Your task to perform on an android device: toggle sleep mode Image 0: 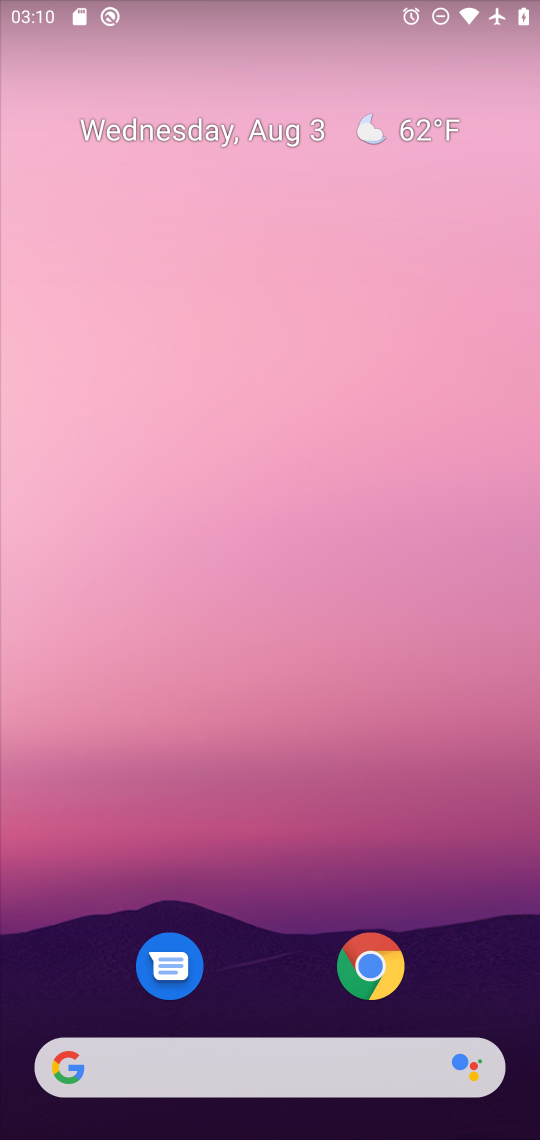
Step 0: drag from (268, 947) to (333, 349)
Your task to perform on an android device: toggle sleep mode Image 1: 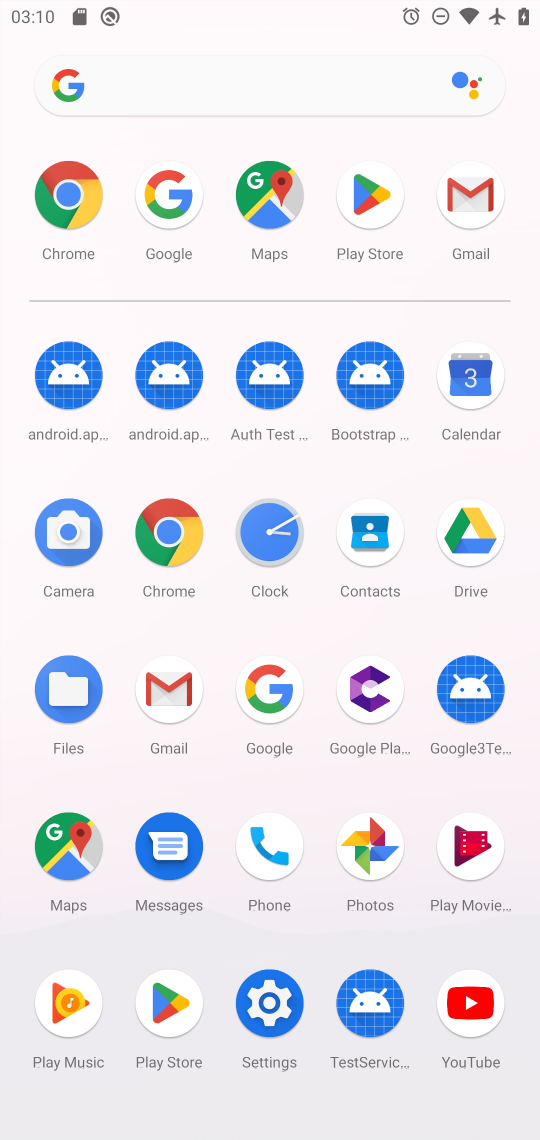
Step 1: click (251, 985)
Your task to perform on an android device: toggle sleep mode Image 2: 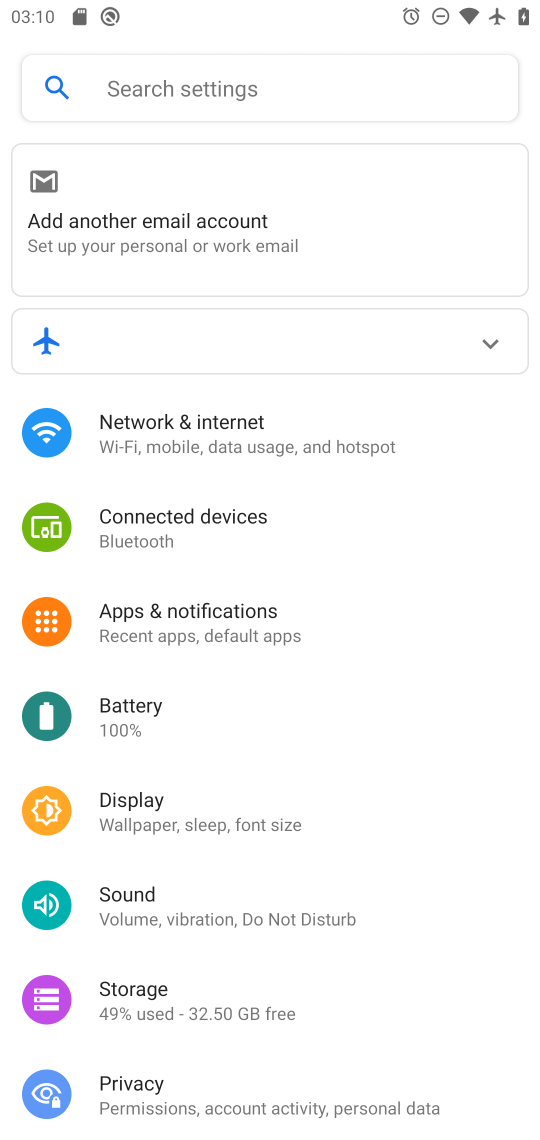
Step 2: click (136, 833)
Your task to perform on an android device: toggle sleep mode Image 3: 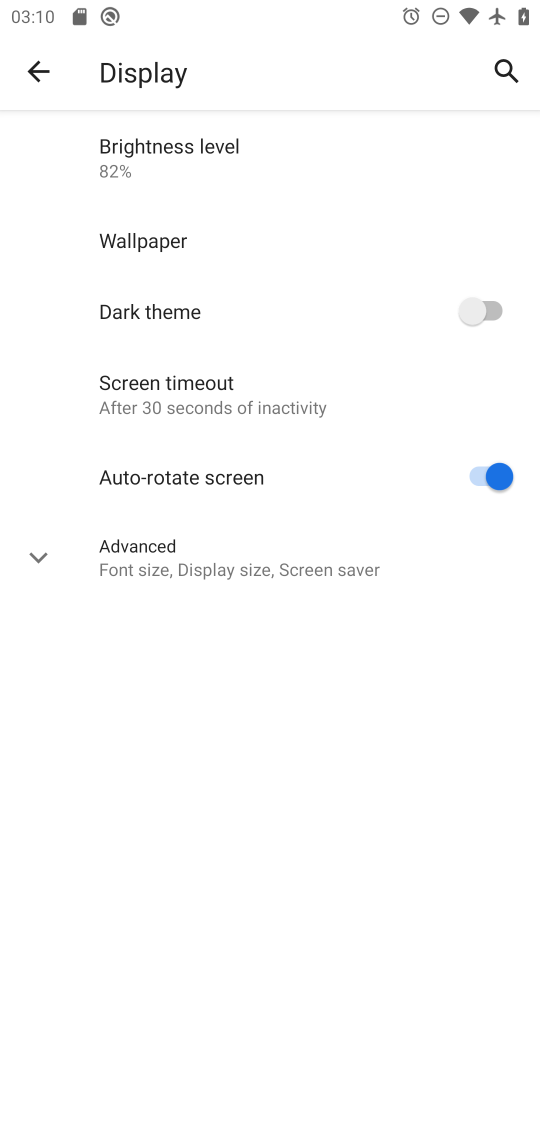
Step 3: click (217, 412)
Your task to perform on an android device: toggle sleep mode Image 4: 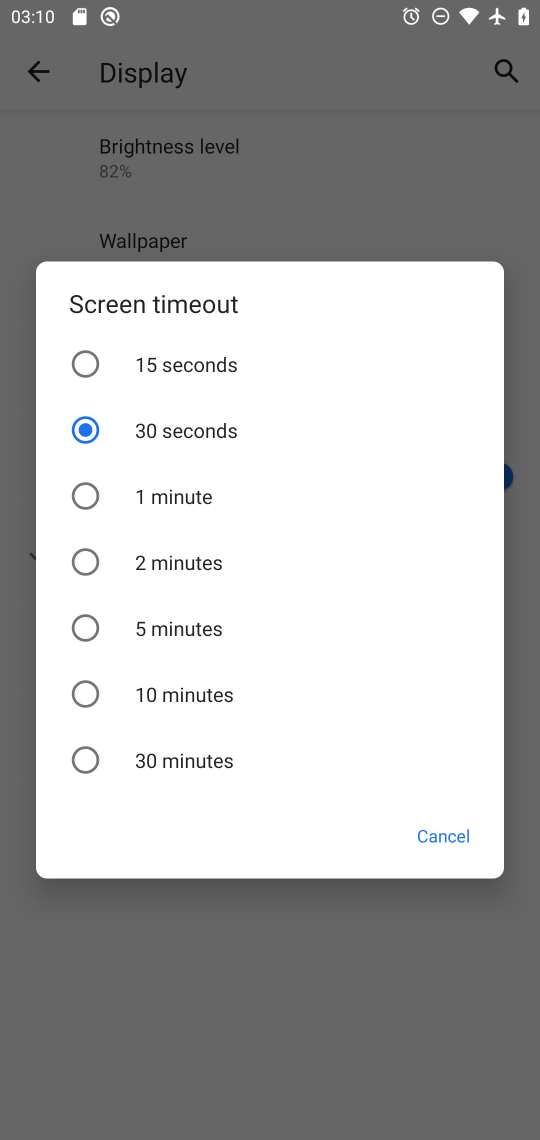
Step 4: click (145, 731)
Your task to perform on an android device: toggle sleep mode Image 5: 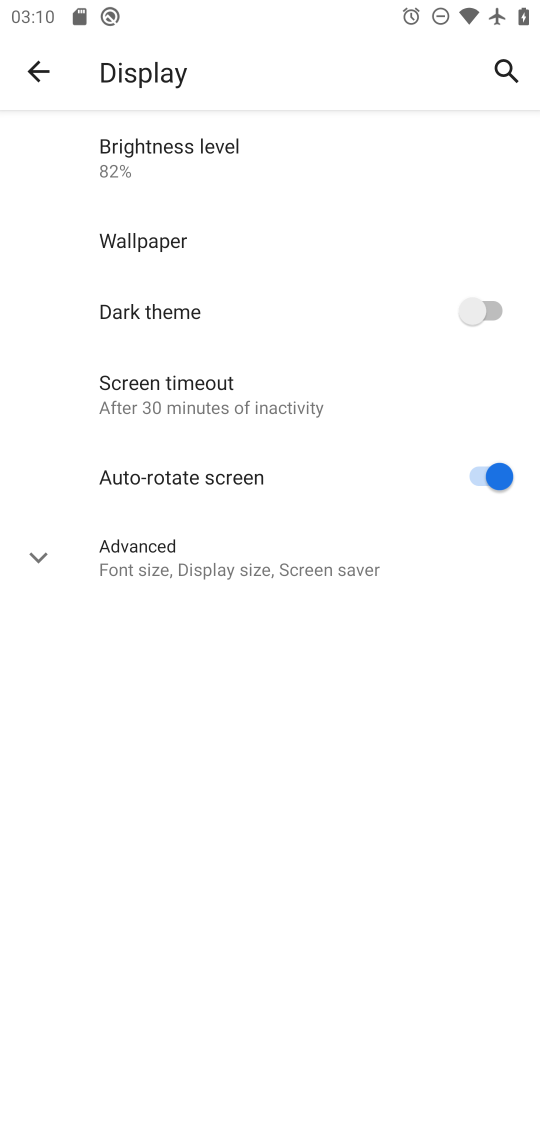
Step 5: task complete